Your task to perform on an android device: Open Google Maps and go to "Timeline" Image 0: 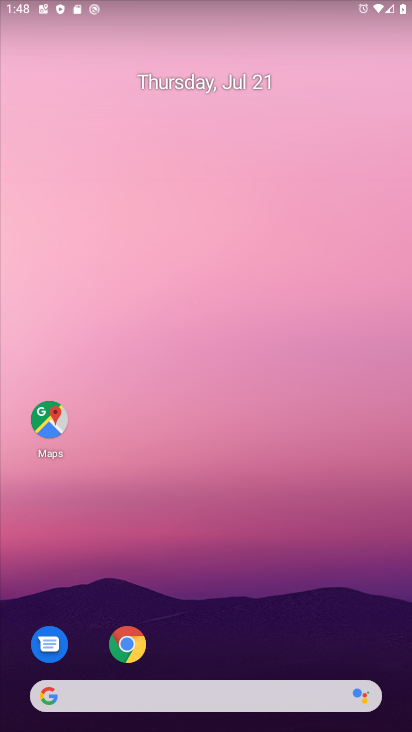
Step 0: drag from (234, 628) to (318, 175)
Your task to perform on an android device: Open Google Maps and go to "Timeline" Image 1: 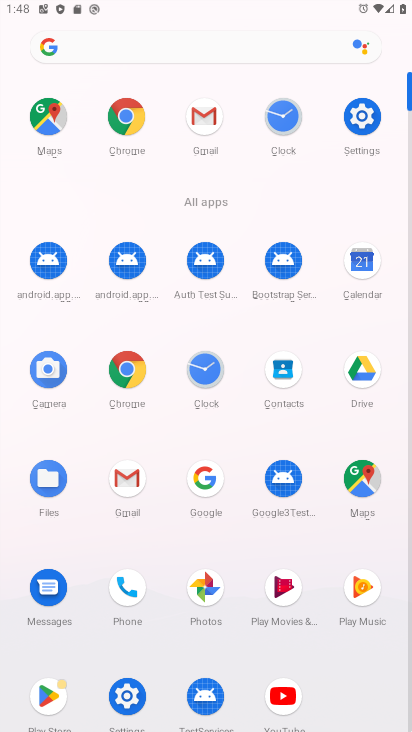
Step 1: click (365, 479)
Your task to perform on an android device: Open Google Maps and go to "Timeline" Image 2: 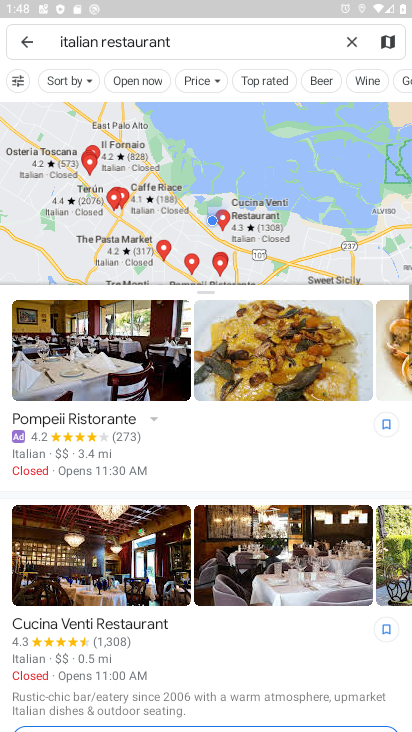
Step 2: click (30, 47)
Your task to perform on an android device: Open Google Maps and go to "Timeline" Image 3: 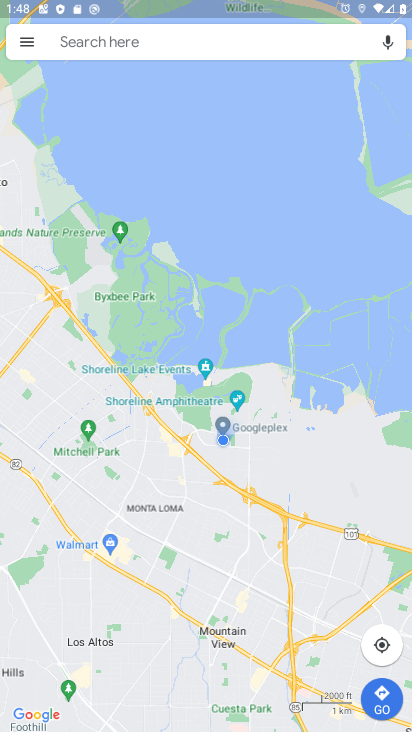
Step 3: click (29, 46)
Your task to perform on an android device: Open Google Maps and go to "Timeline" Image 4: 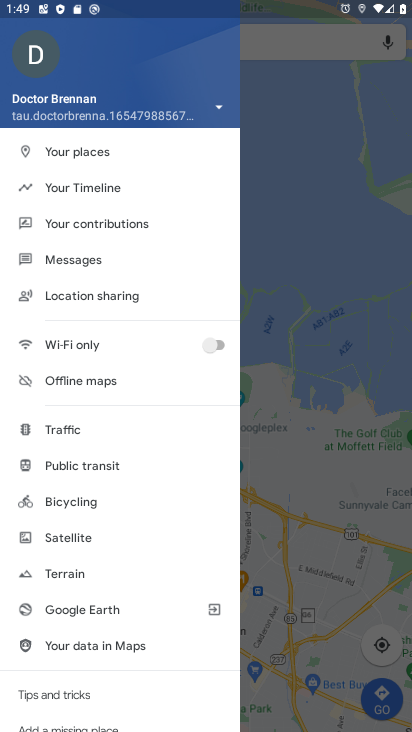
Step 4: click (95, 192)
Your task to perform on an android device: Open Google Maps and go to "Timeline" Image 5: 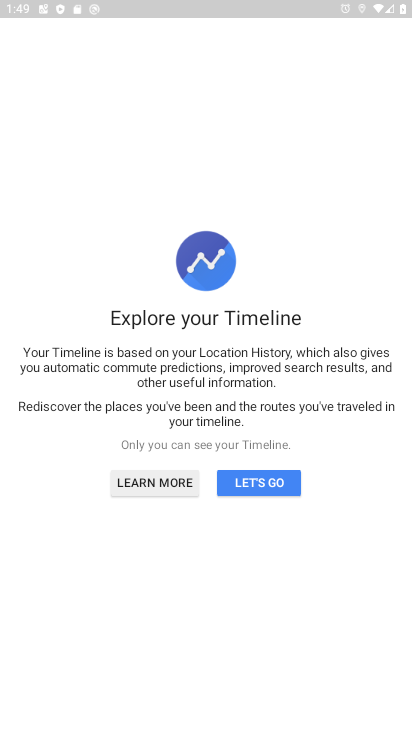
Step 5: click (254, 481)
Your task to perform on an android device: Open Google Maps and go to "Timeline" Image 6: 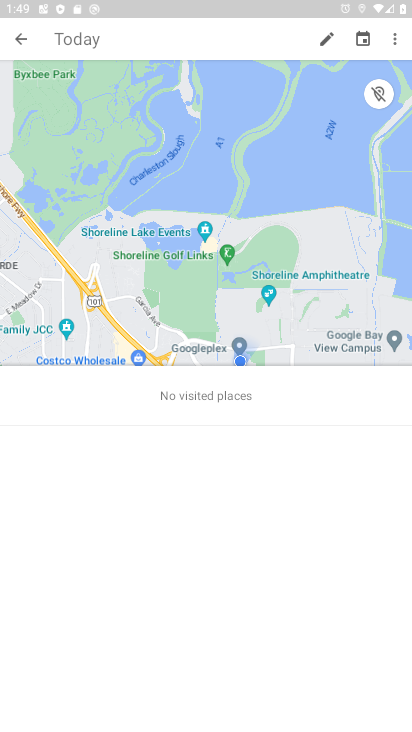
Step 6: task complete